Your task to perform on an android device: snooze an email in the gmail app Image 0: 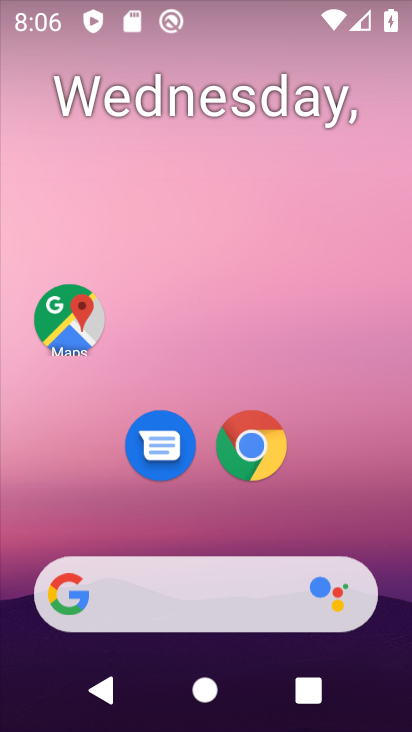
Step 0: drag from (245, 710) to (220, 165)
Your task to perform on an android device: snooze an email in the gmail app Image 1: 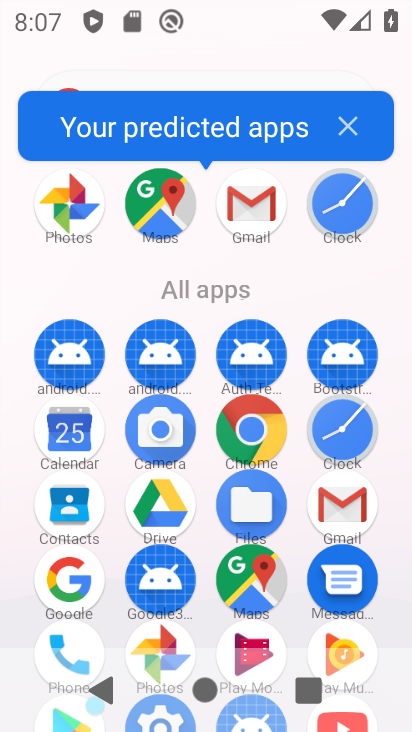
Step 1: click (343, 501)
Your task to perform on an android device: snooze an email in the gmail app Image 2: 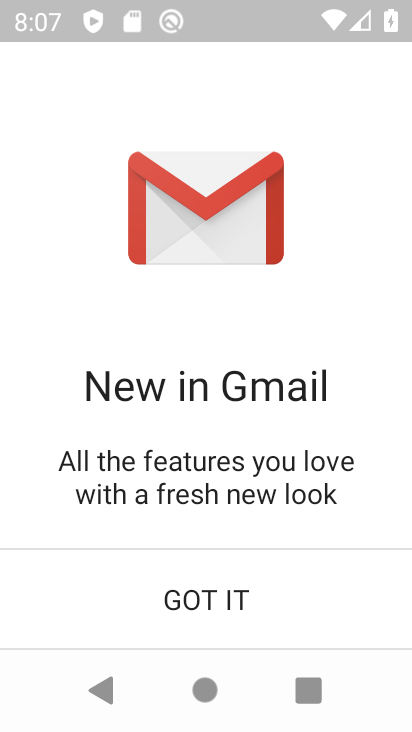
Step 2: click (218, 597)
Your task to perform on an android device: snooze an email in the gmail app Image 3: 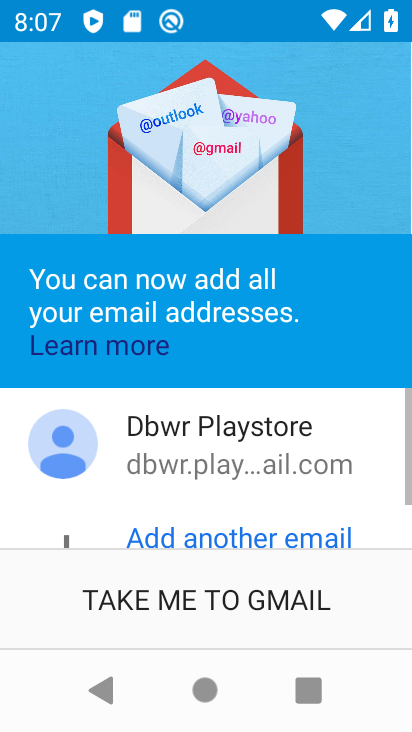
Step 3: click (204, 591)
Your task to perform on an android device: snooze an email in the gmail app Image 4: 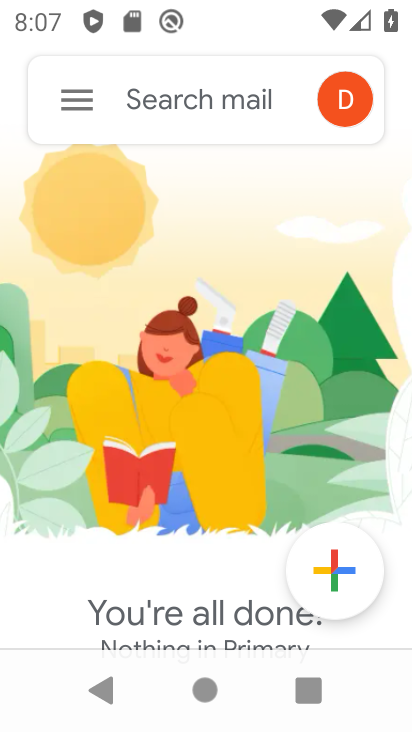
Step 4: task complete